Your task to perform on an android device: turn off notifications settings in the gmail app Image 0: 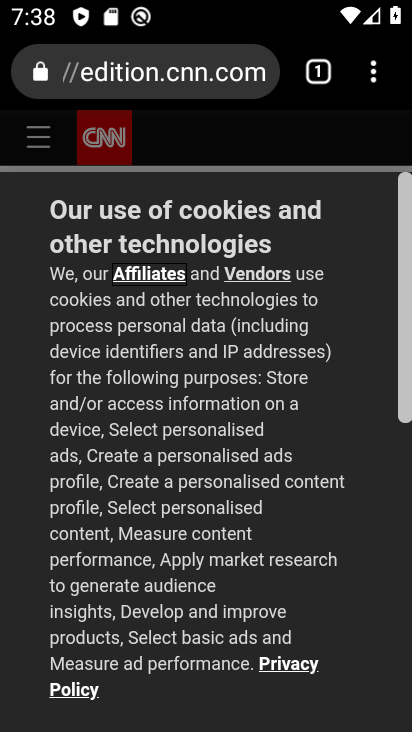
Step 0: press home button
Your task to perform on an android device: turn off notifications settings in the gmail app Image 1: 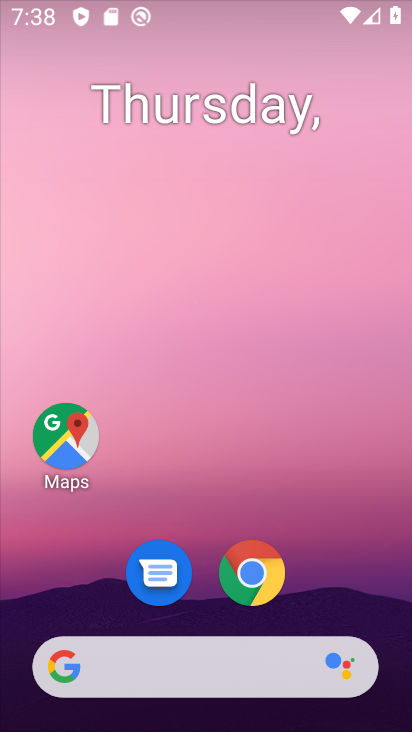
Step 1: drag from (366, 578) to (327, 109)
Your task to perform on an android device: turn off notifications settings in the gmail app Image 2: 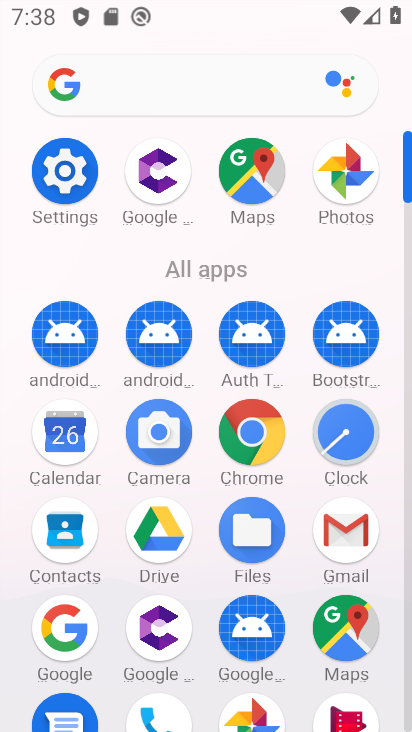
Step 2: click (337, 555)
Your task to perform on an android device: turn off notifications settings in the gmail app Image 3: 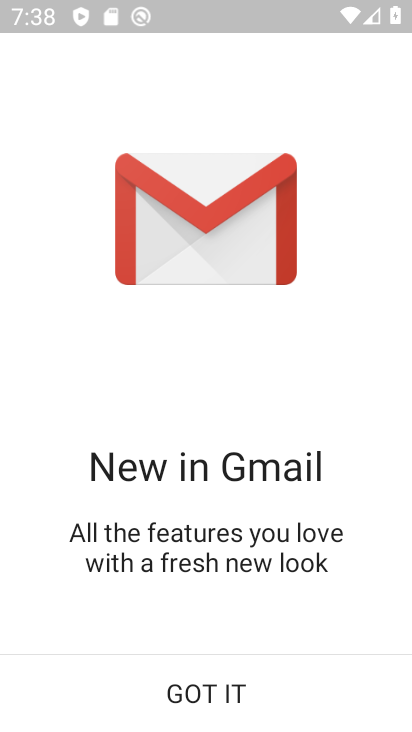
Step 3: click (261, 703)
Your task to perform on an android device: turn off notifications settings in the gmail app Image 4: 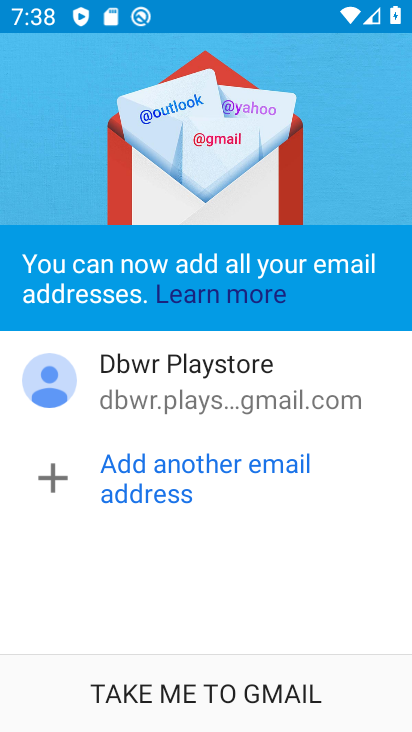
Step 4: click (298, 697)
Your task to perform on an android device: turn off notifications settings in the gmail app Image 5: 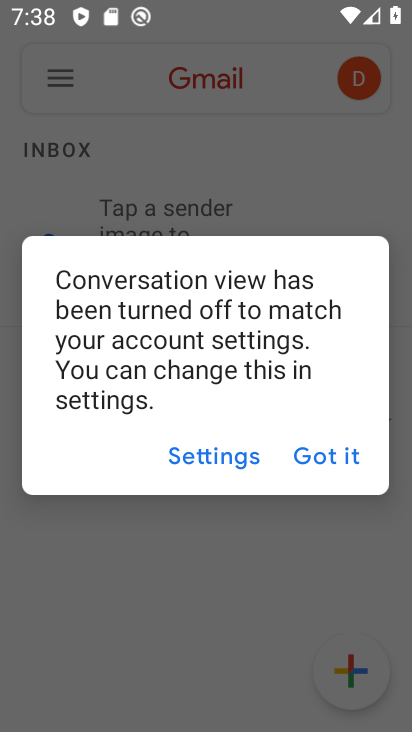
Step 5: click (319, 459)
Your task to perform on an android device: turn off notifications settings in the gmail app Image 6: 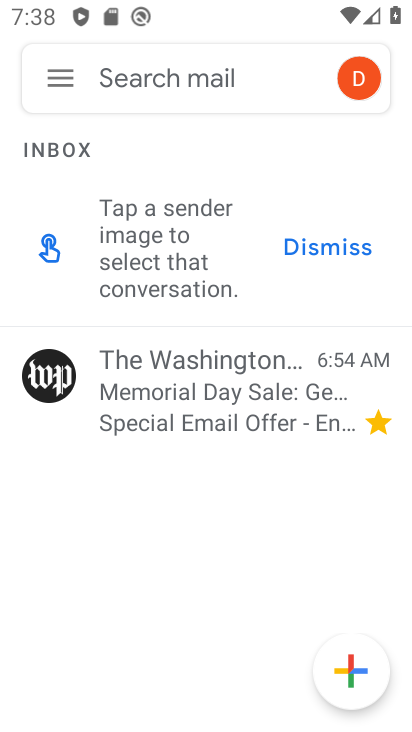
Step 6: click (66, 82)
Your task to perform on an android device: turn off notifications settings in the gmail app Image 7: 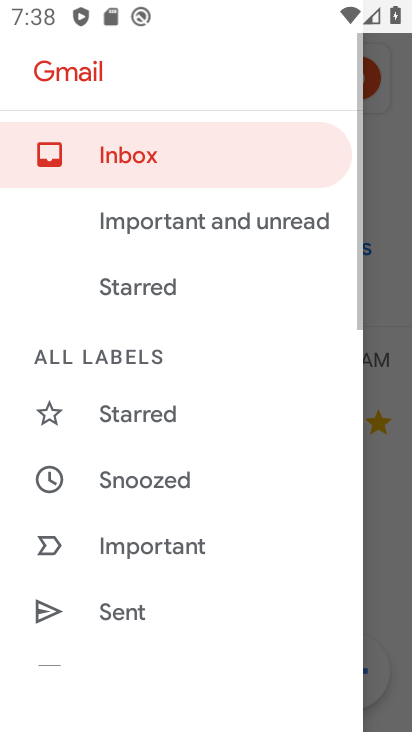
Step 7: drag from (280, 613) to (153, 130)
Your task to perform on an android device: turn off notifications settings in the gmail app Image 8: 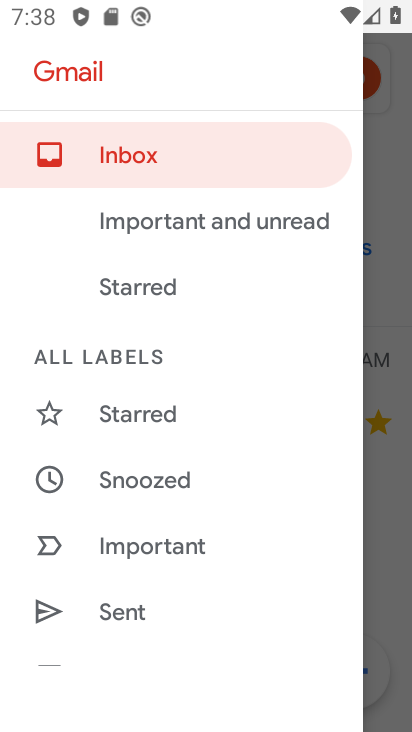
Step 8: drag from (247, 593) to (279, 158)
Your task to perform on an android device: turn off notifications settings in the gmail app Image 9: 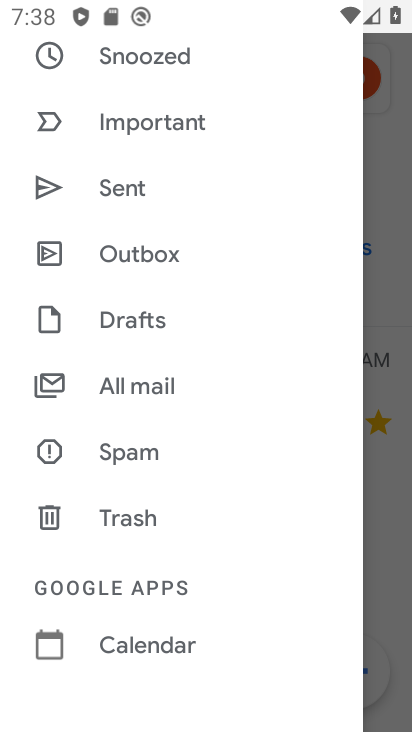
Step 9: drag from (192, 660) to (245, 275)
Your task to perform on an android device: turn off notifications settings in the gmail app Image 10: 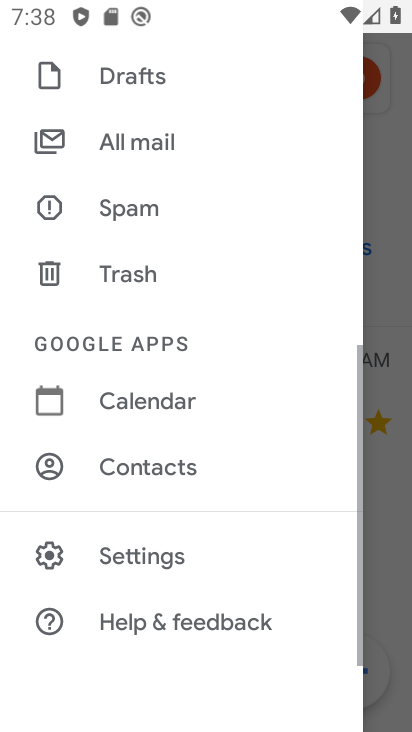
Step 10: click (150, 568)
Your task to perform on an android device: turn off notifications settings in the gmail app Image 11: 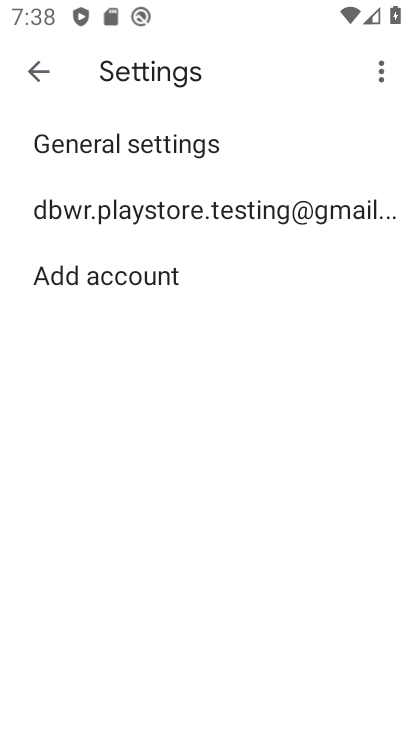
Step 11: click (256, 214)
Your task to perform on an android device: turn off notifications settings in the gmail app Image 12: 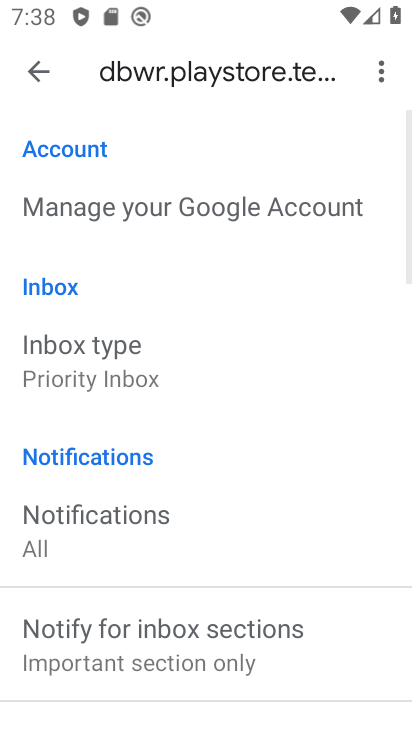
Step 12: drag from (239, 449) to (331, 121)
Your task to perform on an android device: turn off notifications settings in the gmail app Image 13: 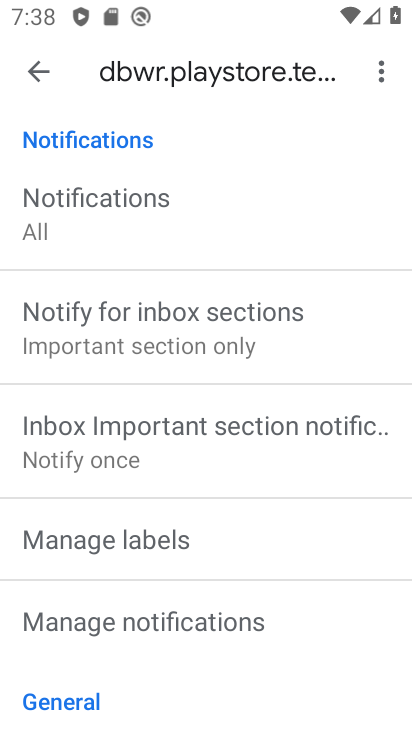
Step 13: click (174, 642)
Your task to perform on an android device: turn off notifications settings in the gmail app Image 14: 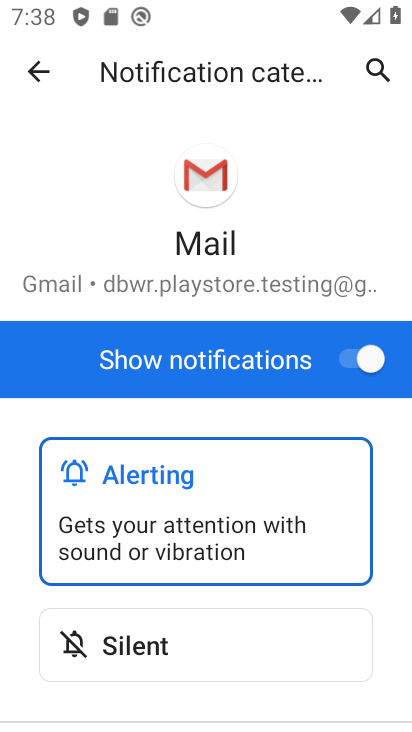
Step 14: click (376, 353)
Your task to perform on an android device: turn off notifications settings in the gmail app Image 15: 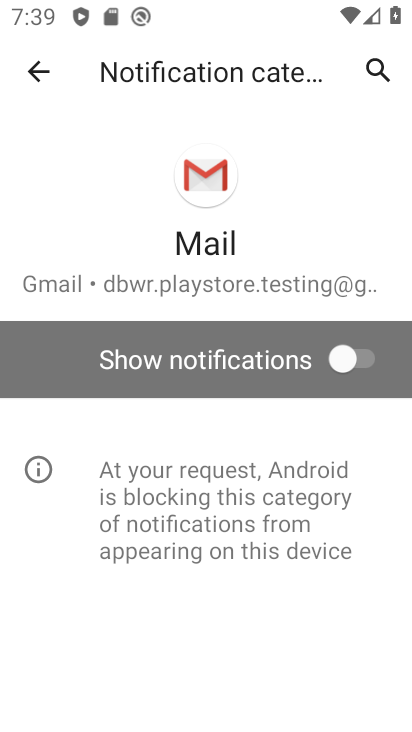
Step 15: task complete